Your task to perform on an android device: Open the stopwatch Image 0: 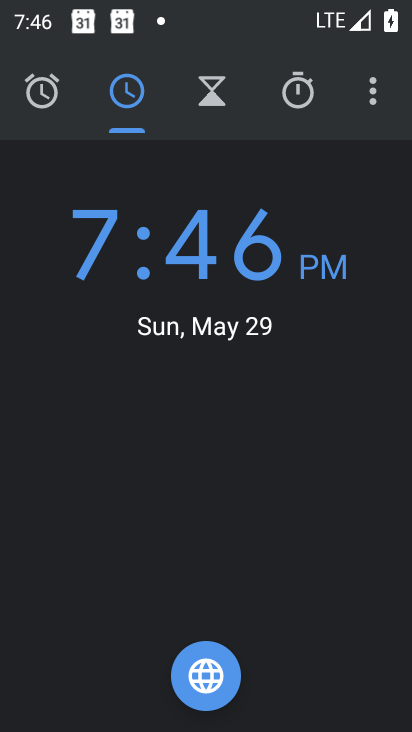
Step 0: drag from (228, 697) to (210, 286)
Your task to perform on an android device: Open the stopwatch Image 1: 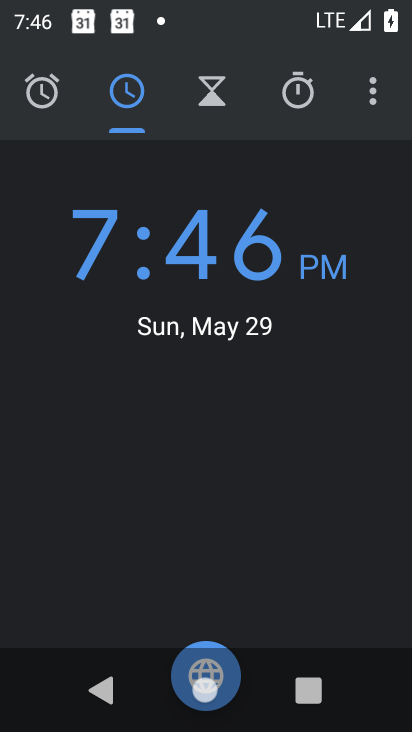
Step 1: press home button
Your task to perform on an android device: Open the stopwatch Image 2: 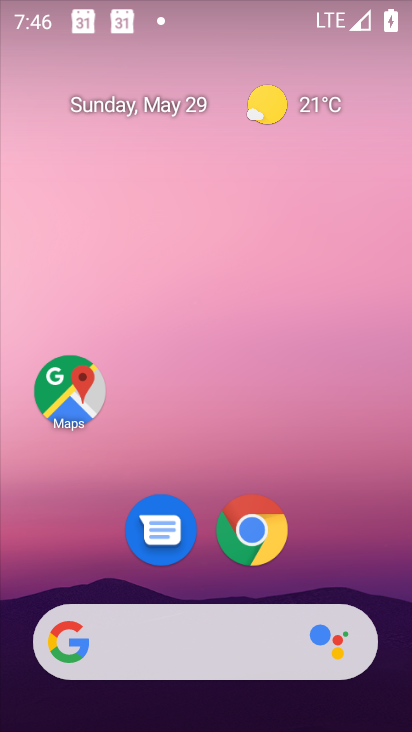
Step 2: drag from (248, 697) to (233, 240)
Your task to perform on an android device: Open the stopwatch Image 3: 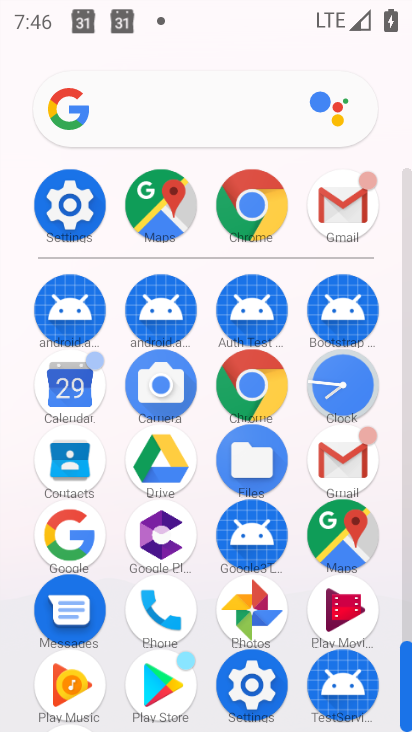
Step 3: click (328, 369)
Your task to perform on an android device: Open the stopwatch Image 4: 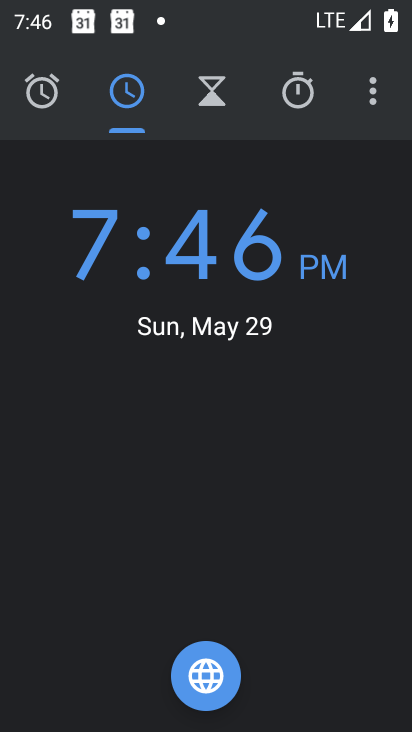
Step 4: click (290, 94)
Your task to perform on an android device: Open the stopwatch Image 5: 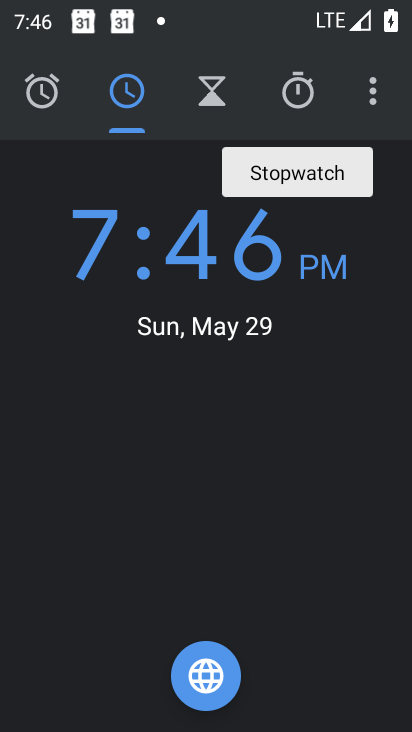
Step 5: click (294, 108)
Your task to perform on an android device: Open the stopwatch Image 6: 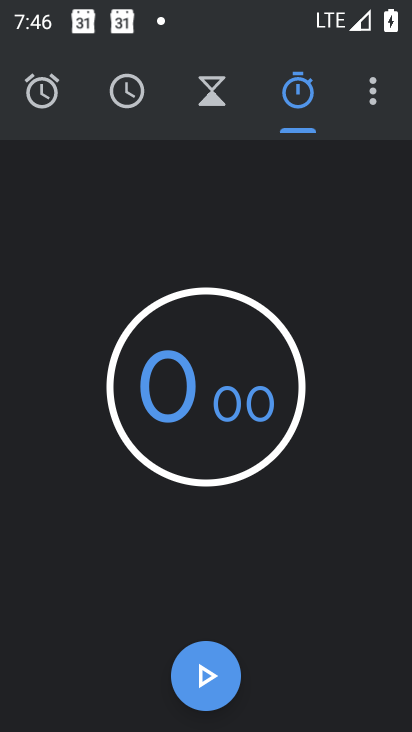
Step 6: click (197, 678)
Your task to perform on an android device: Open the stopwatch Image 7: 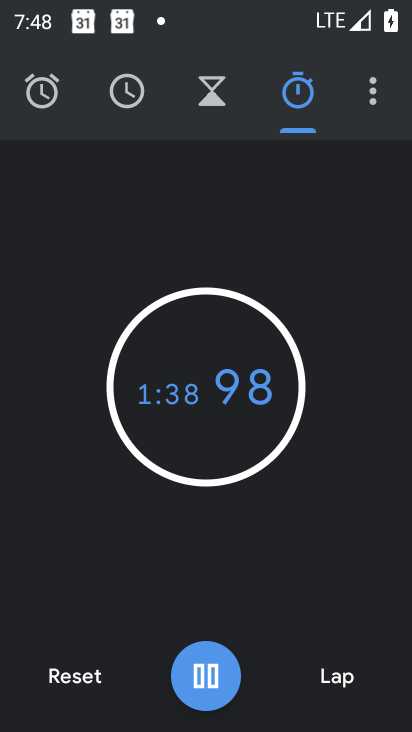
Step 7: task complete